Your task to perform on an android device: Open calendar and show me the second week of next month Image 0: 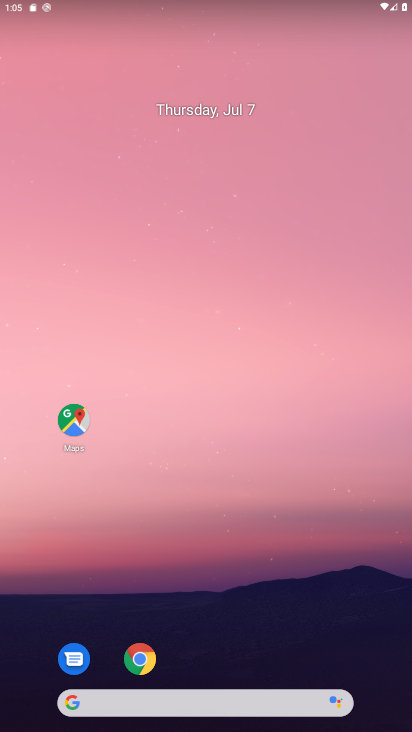
Step 0: drag from (224, 665) to (275, 131)
Your task to perform on an android device: Open calendar and show me the second week of next month Image 1: 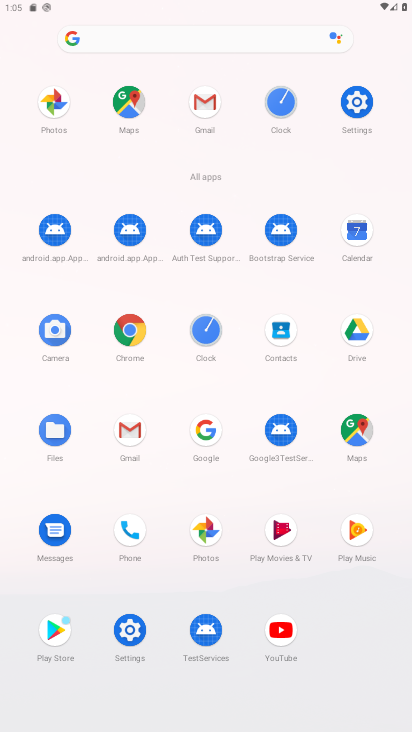
Step 1: click (342, 231)
Your task to perform on an android device: Open calendar and show me the second week of next month Image 2: 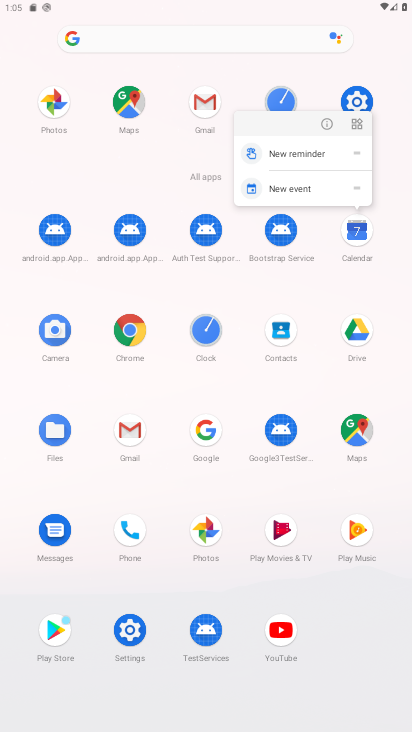
Step 2: click (320, 121)
Your task to perform on an android device: Open calendar and show me the second week of next month Image 3: 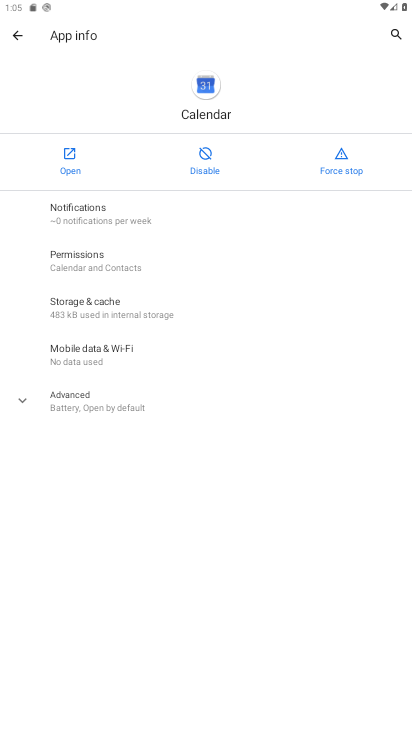
Step 3: click (61, 153)
Your task to perform on an android device: Open calendar and show me the second week of next month Image 4: 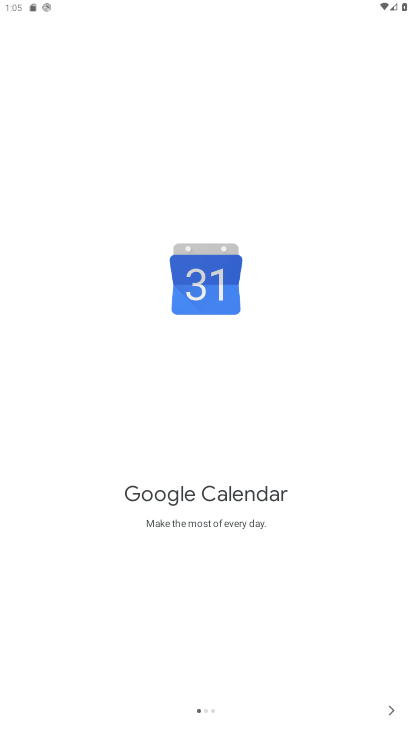
Step 4: click (394, 717)
Your task to perform on an android device: Open calendar and show me the second week of next month Image 5: 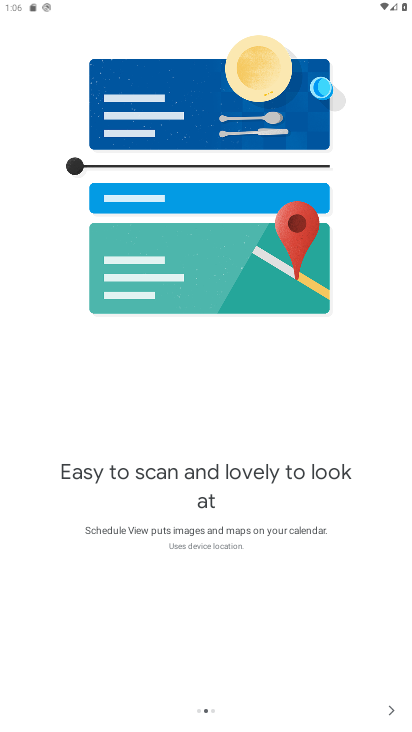
Step 5: click (380, 709)
Your task to perform on an android device: Open calendar and show me the second week of next month Image 6: 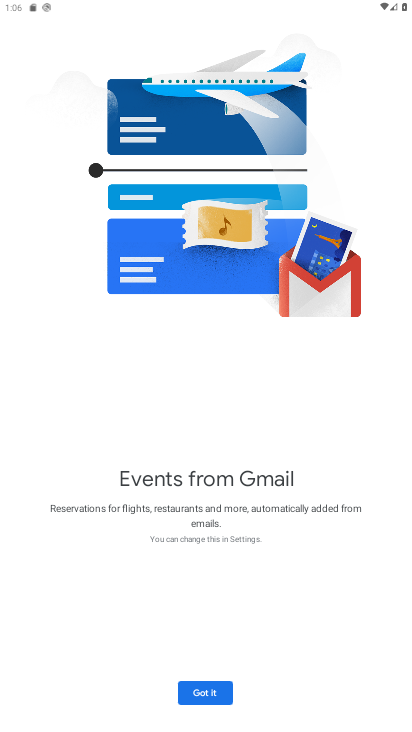
Step 6: click (200, 691)
Your task to perform on an android device: Open calendar and show me the second week of next month Image 7: 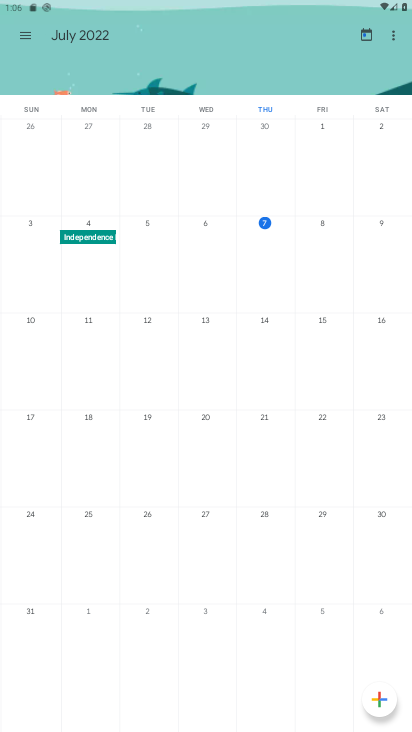
Step 7: drag from (369, 338) to (13, 350)
Your task to perform on an android device: Open calendar and show me the second week of next month Image 8: 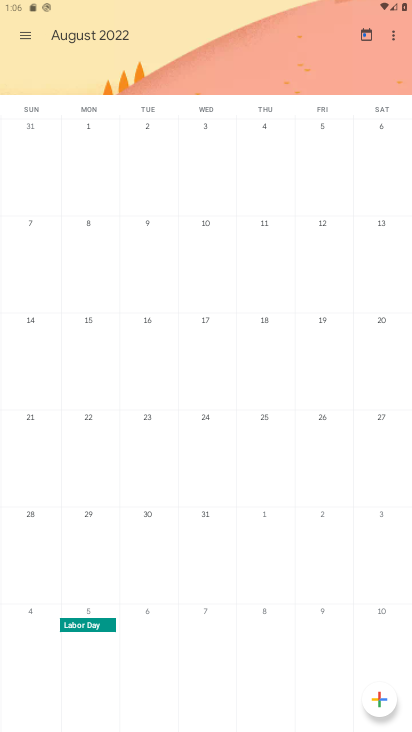
Step 8: click (258, 223)
Your task to perform on an android device: Open calendar and show me the second week of next month Image 9: 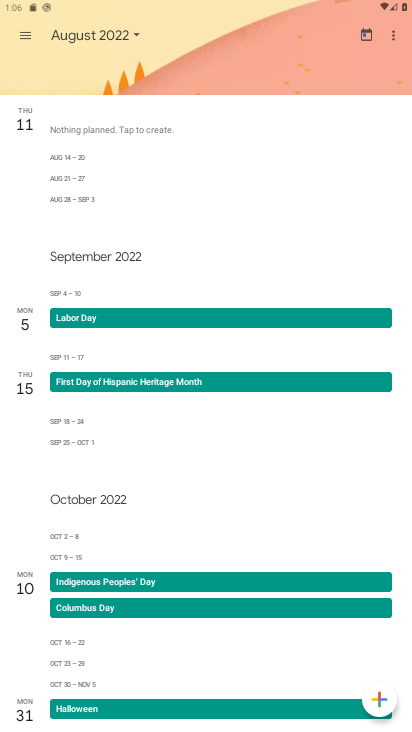
Step 9: task complete